Your task to perform on an android device: Show me productivity apps on the Play Store Image 0: 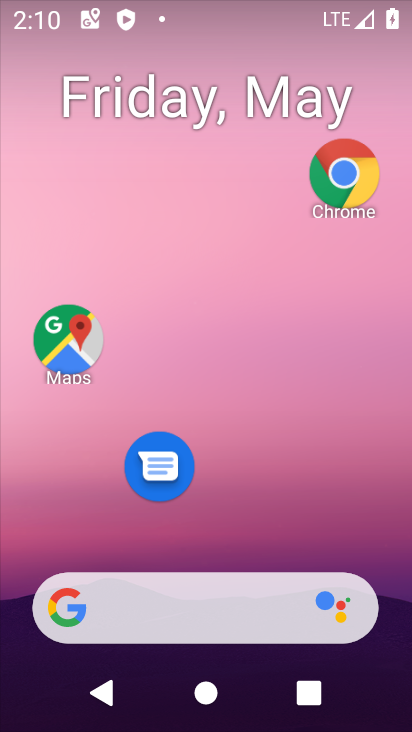
Step 0: drag from (262, 434) to (259, 3)
Your task to perform on an android device: Show me productivity apps on the Play Store Image 1: 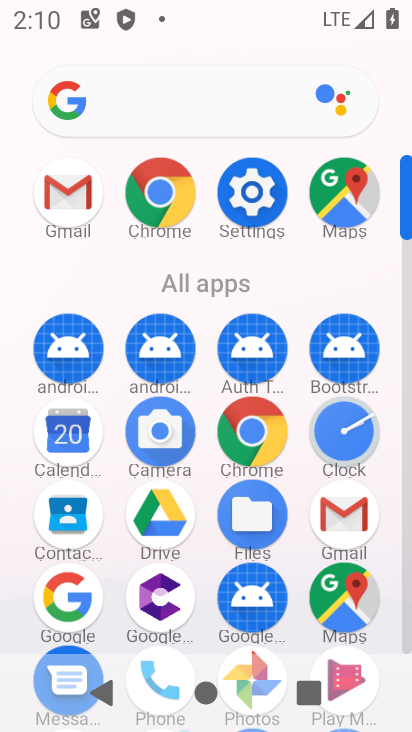
Step 1: drag from (280, 301) to (274, 67)
Your task to perform on an android device: Show me productivity apps on the Play Store Image 2: 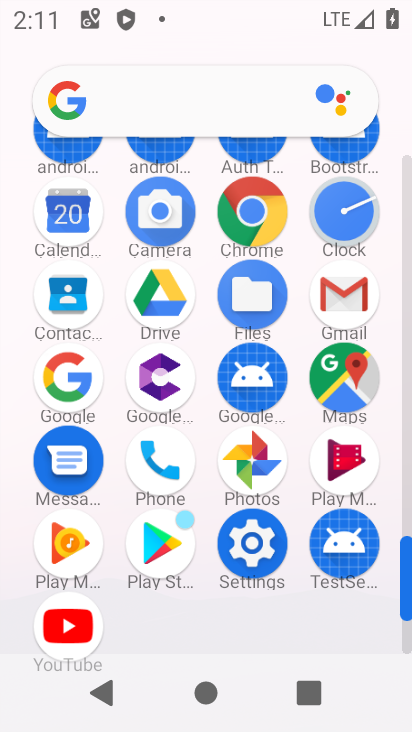
Step 2: click (148, 548)
Your task to perform on an android device: Show me productivity apps on the Play Store Image 3: 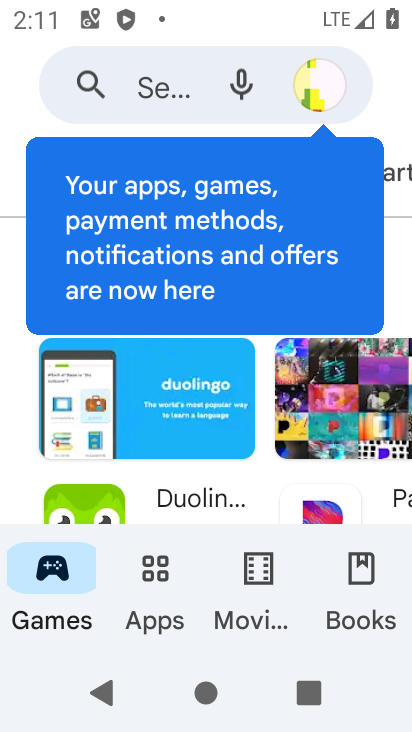
Step 3: click (152, 80)
Your task to perform on an android device: Show me productivity apps on the Play Store Image 4: 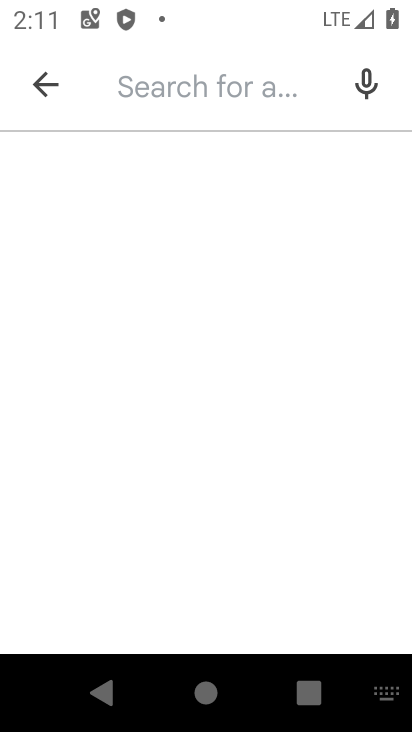
Step 4: type " productivity apps "
Your task to perform on an android device: Show me productivity apps on the Play Store Image 5: 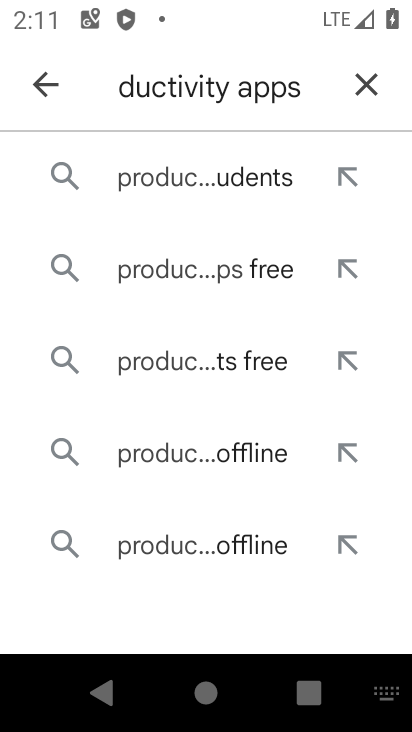
Step 5: click (152, 178)
Your task to perform on an android device: Show me productivity apps on the Play Store Image 6: 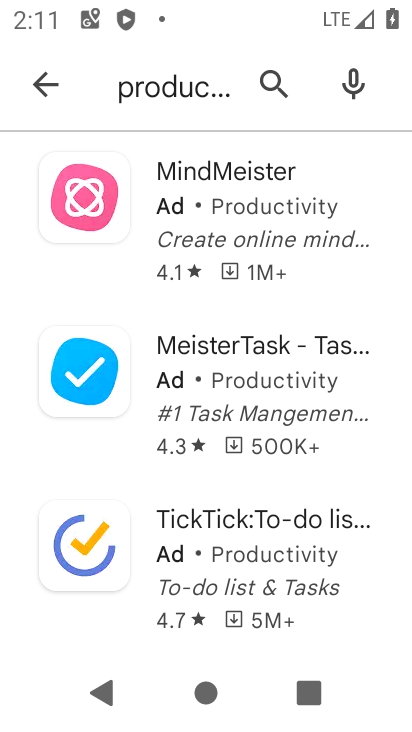
Step 6: task complete